Your task to perform on an android device: Open accessibility settings Image 0: 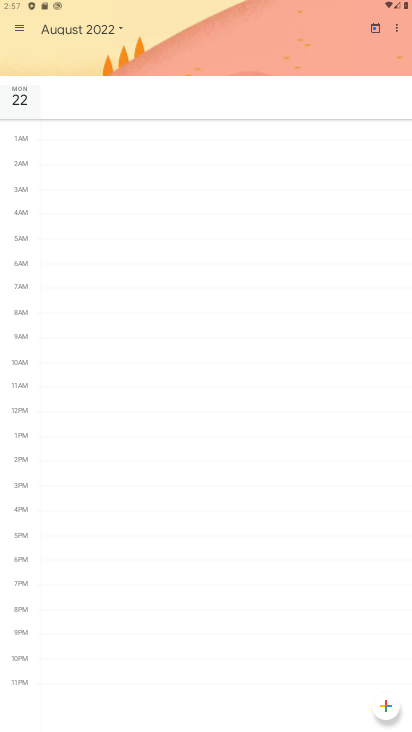
Step 0: drag from (17, 678) to (71, 574)
Your task to perform on an android device: Open accessibility settings Image 1: 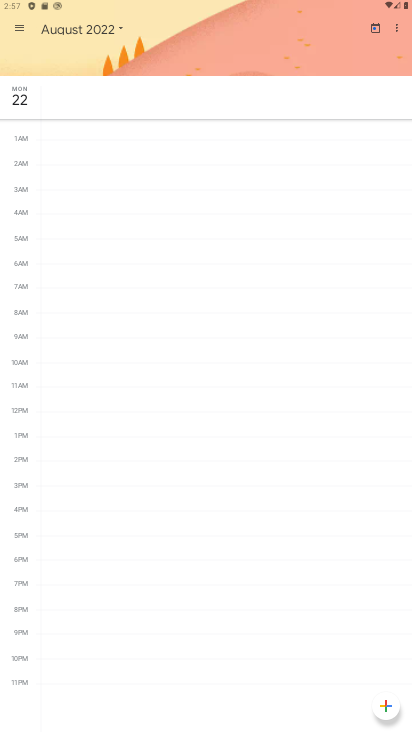
Step 1: press home button
Your task to perform on an android device: Open accessibility settings Image 2: 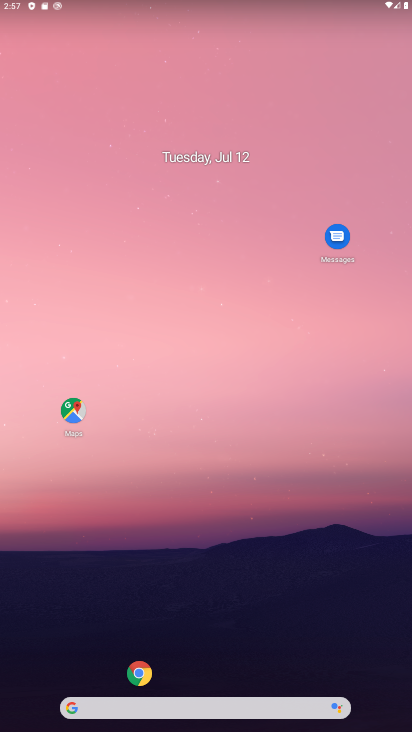
Step 2: drag from (6, 683) to (367, 27)
Your task to perform on an android device: Open accessibility settings Image 3: 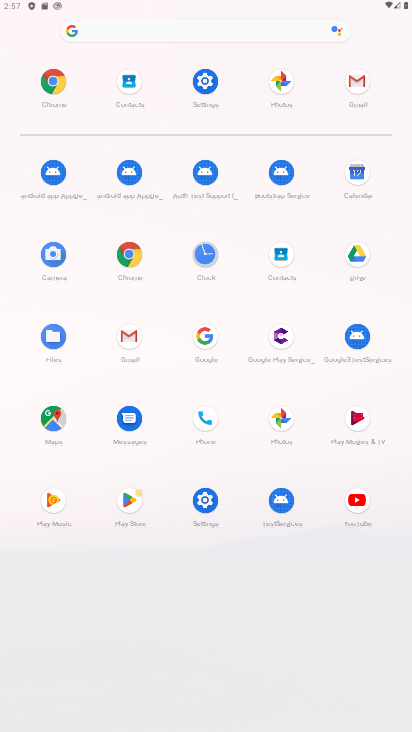
Step 3: click (210, 501)
Your task to perform on an android device: Open accessibility settings Image 4: 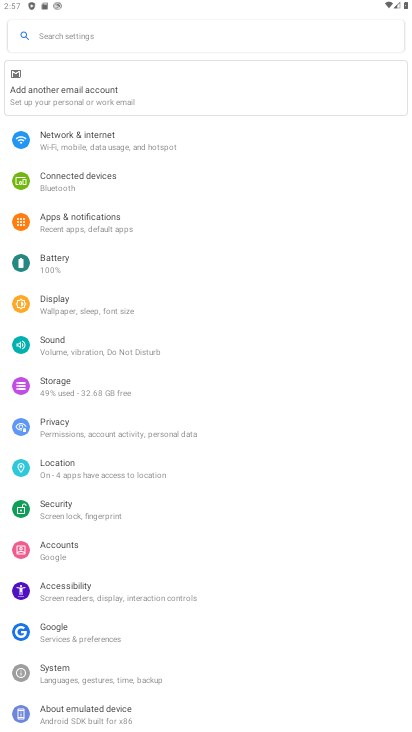
Step 4: click (73, 592)
Your task to perform on an android device: Open accessibility settings Image 5: 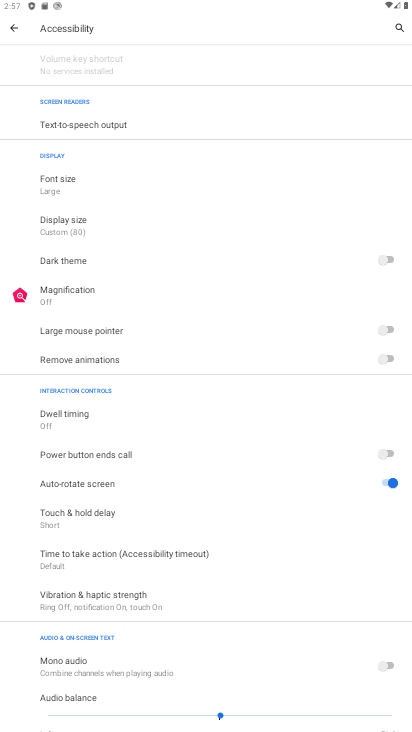
Step 5: task complete